Your task to perform on an android device: turn off notifications settings in the gmail app Image 0: 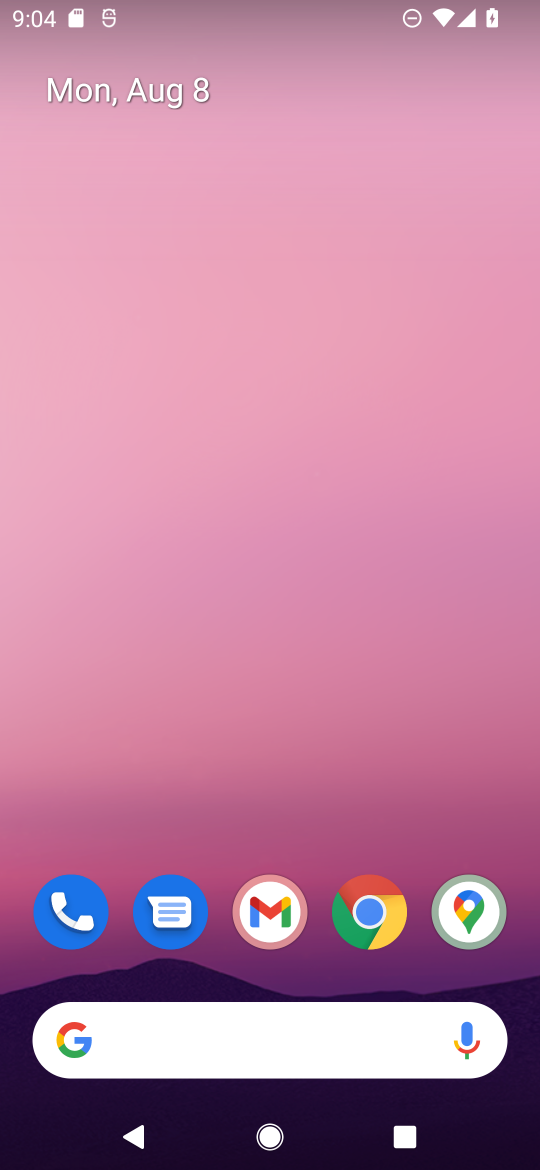
Step 0: drag from (430, 902) to (330, 1)
Your task to perform on an android device: turn off notifications settings in the gmail app Image 1: 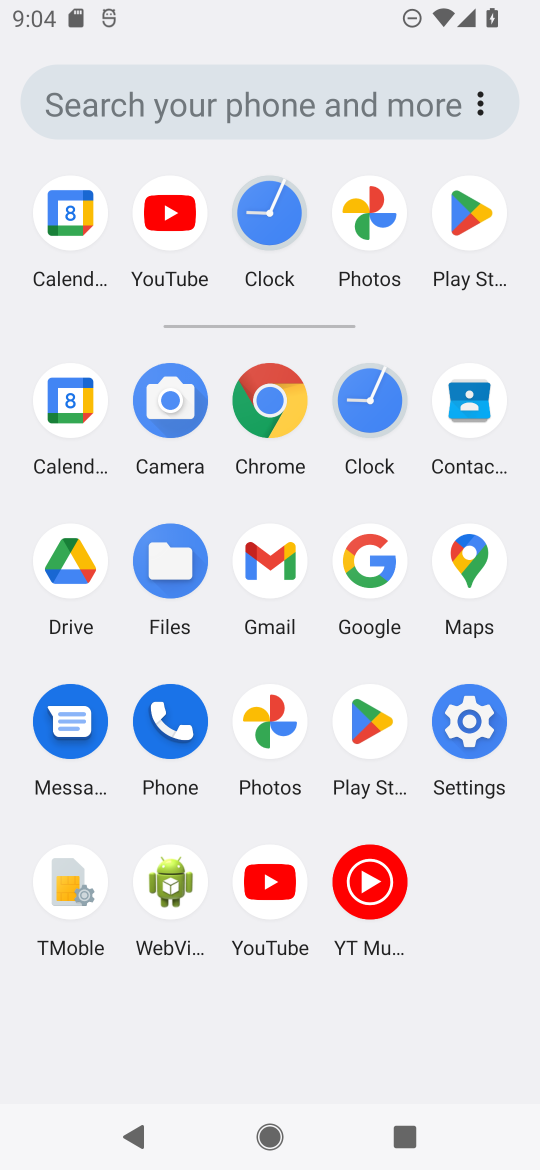
Step 1: click (258, 584)
Your task to perform on an android device: turn off notifications settings in the gmail app Image 2: 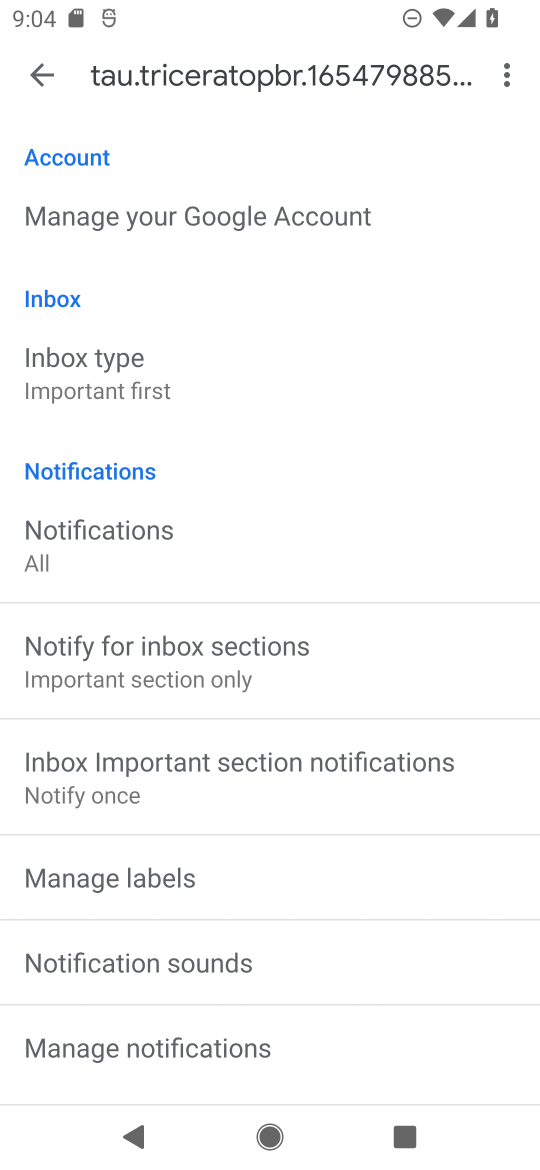
Step 2: click (125, 559)
Your task to perform on an android device: turn off notifications settings in the gmail app Image 3: 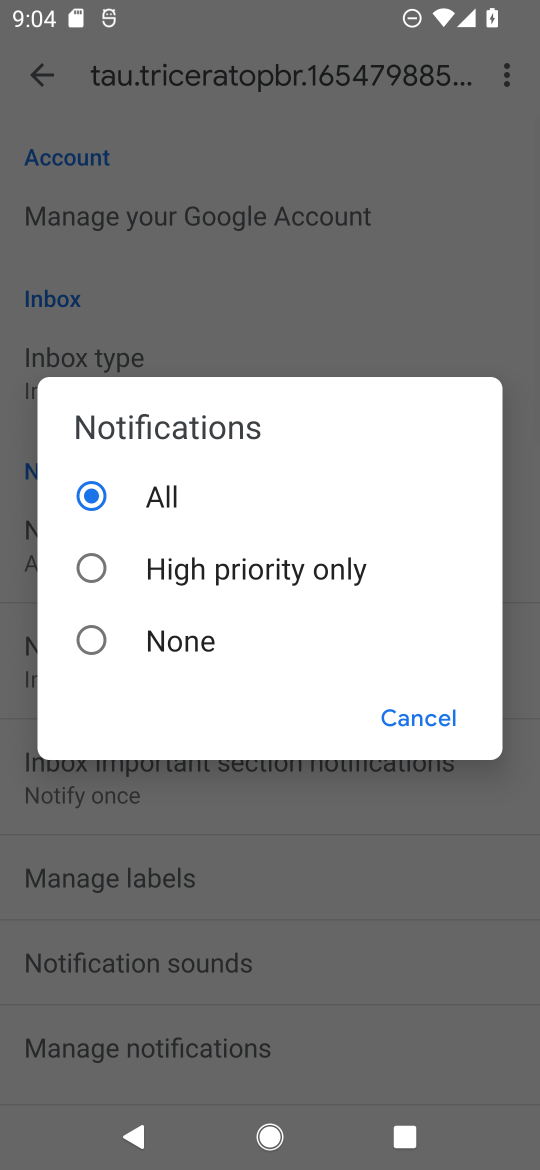
Step 3: click (92, 641)
Your task to perform on an android device: turn off notifications settings in the gmail app Image 4: 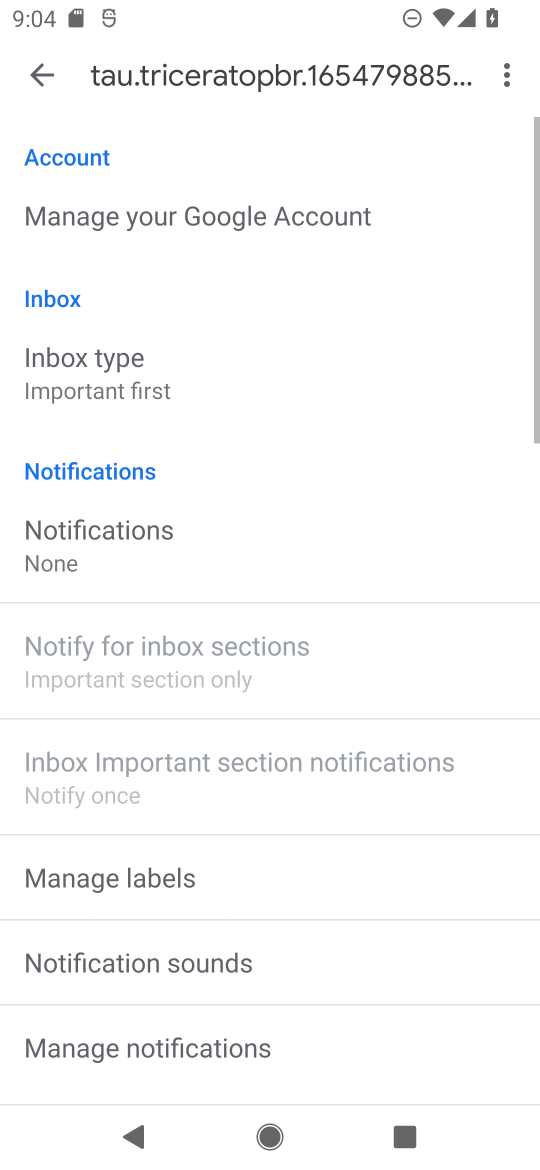
Step 4: task complete